Your task to perform on an android device: Show me popular videos on Youtube Image 0: 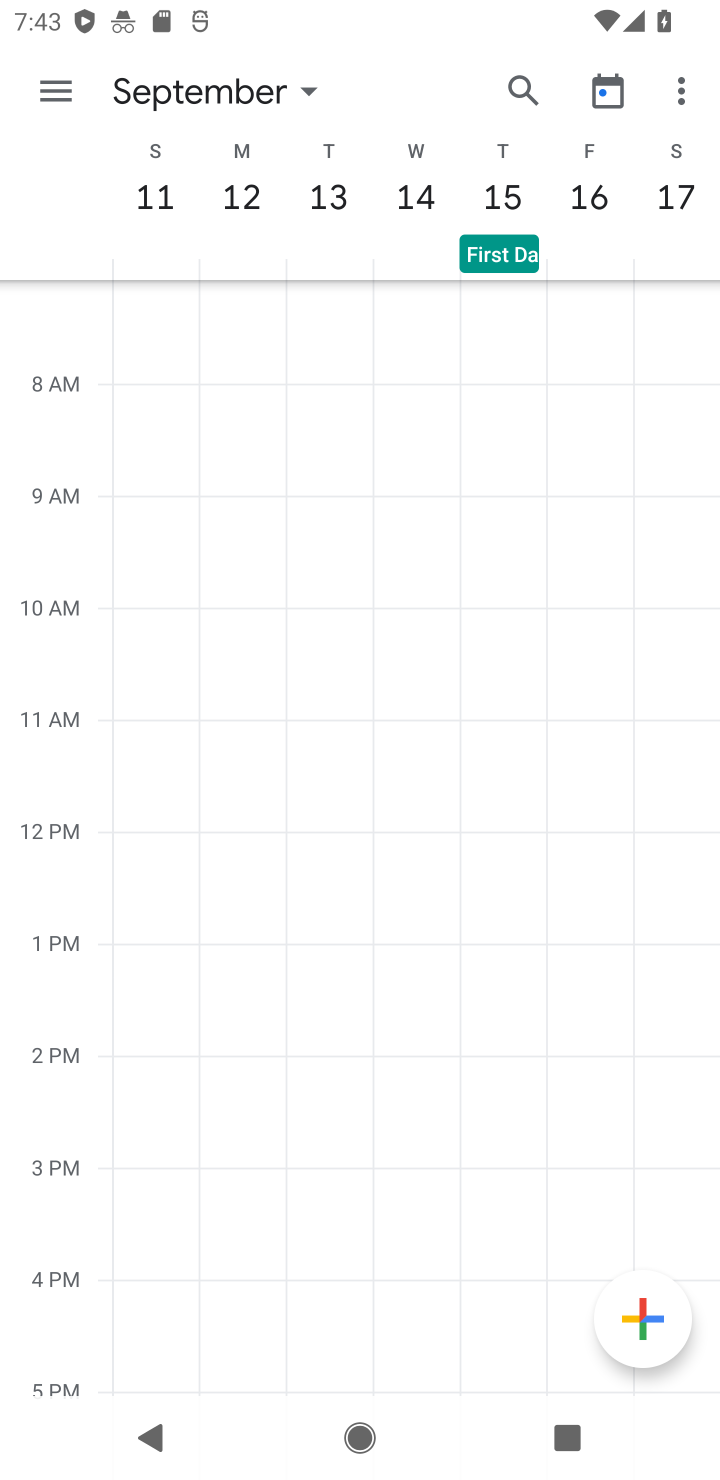
Step 0: press home button
Your task to perform on an android device: Show me popular videos on Youtube Image 1: 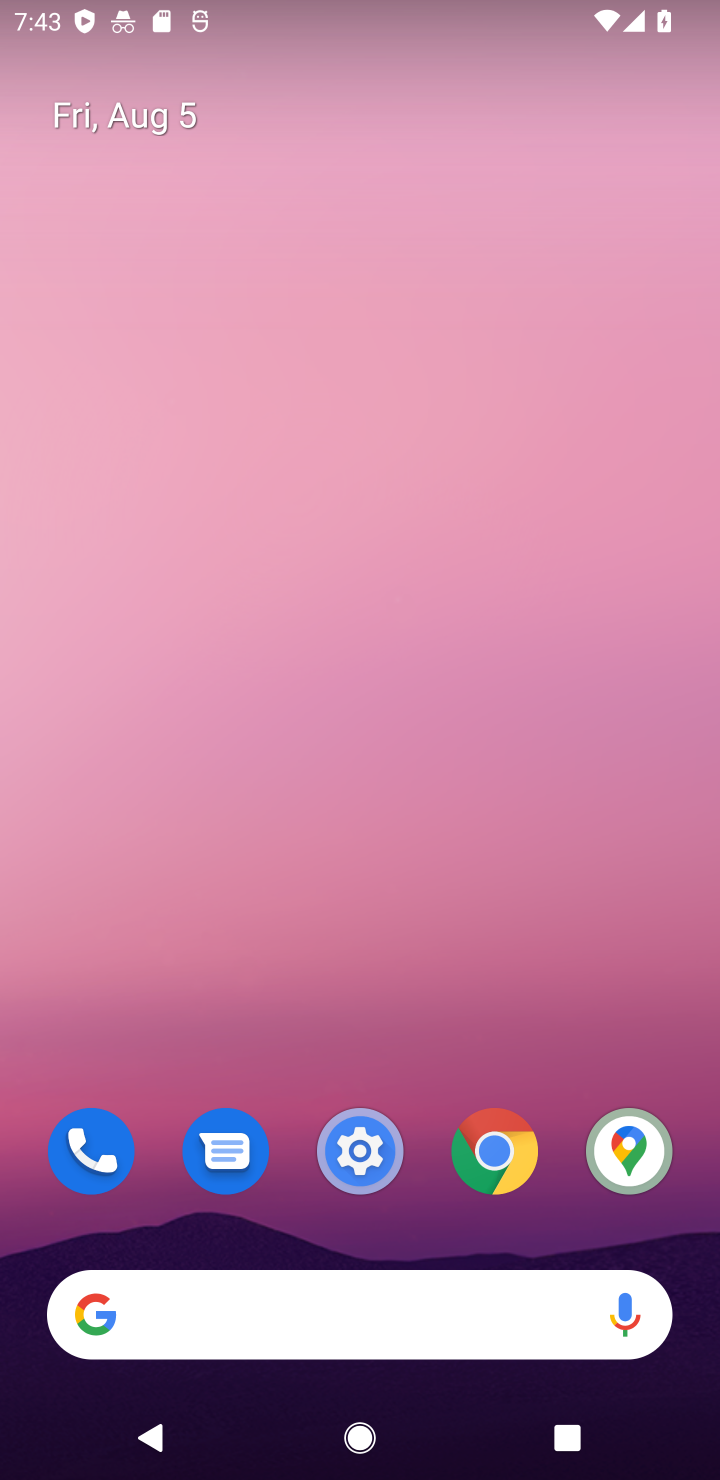
Step 1: drag from (381, 1251) to (290, 321)
Your task to perform on an android device: Show me popular videos on Youtube Image 2: 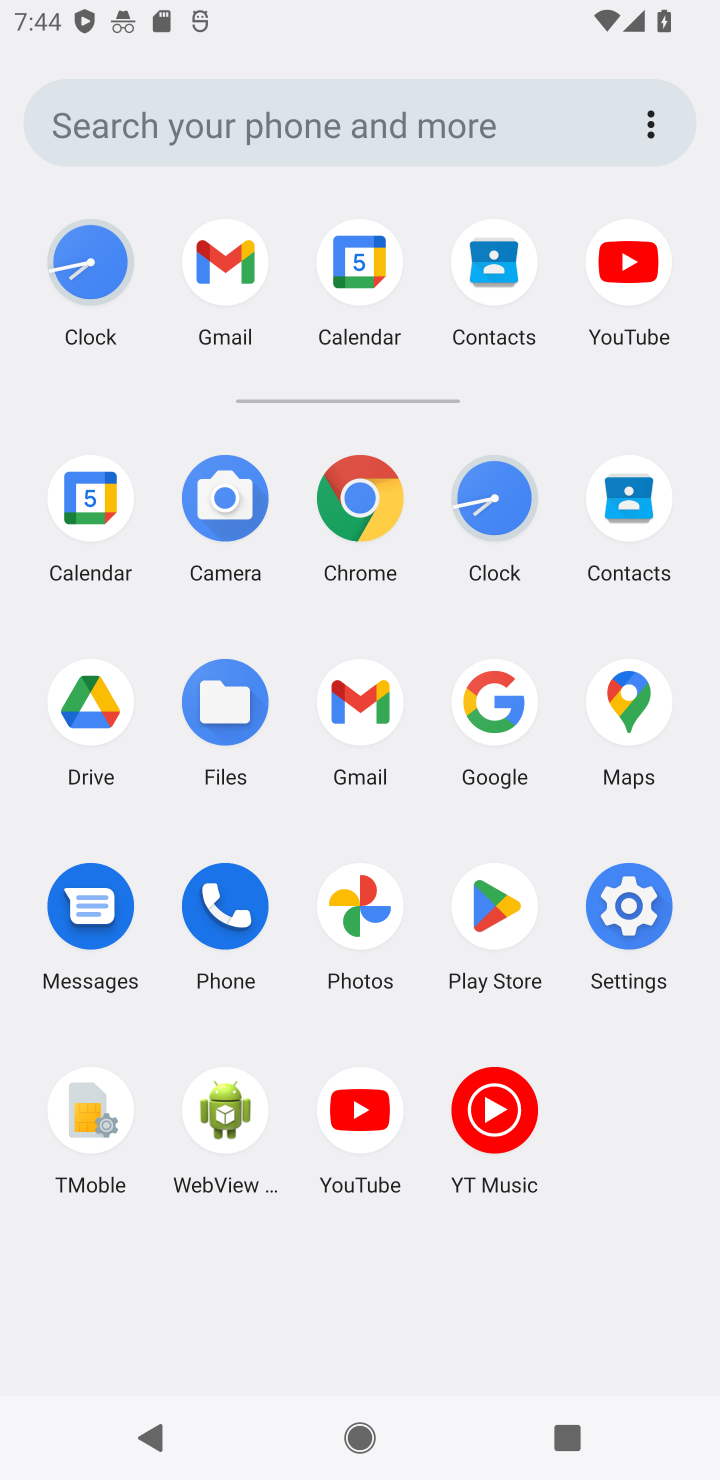
Step 2: click (354, 1061)
Your task to perform on an android device: Show me popular videos on Youtube Image 3: 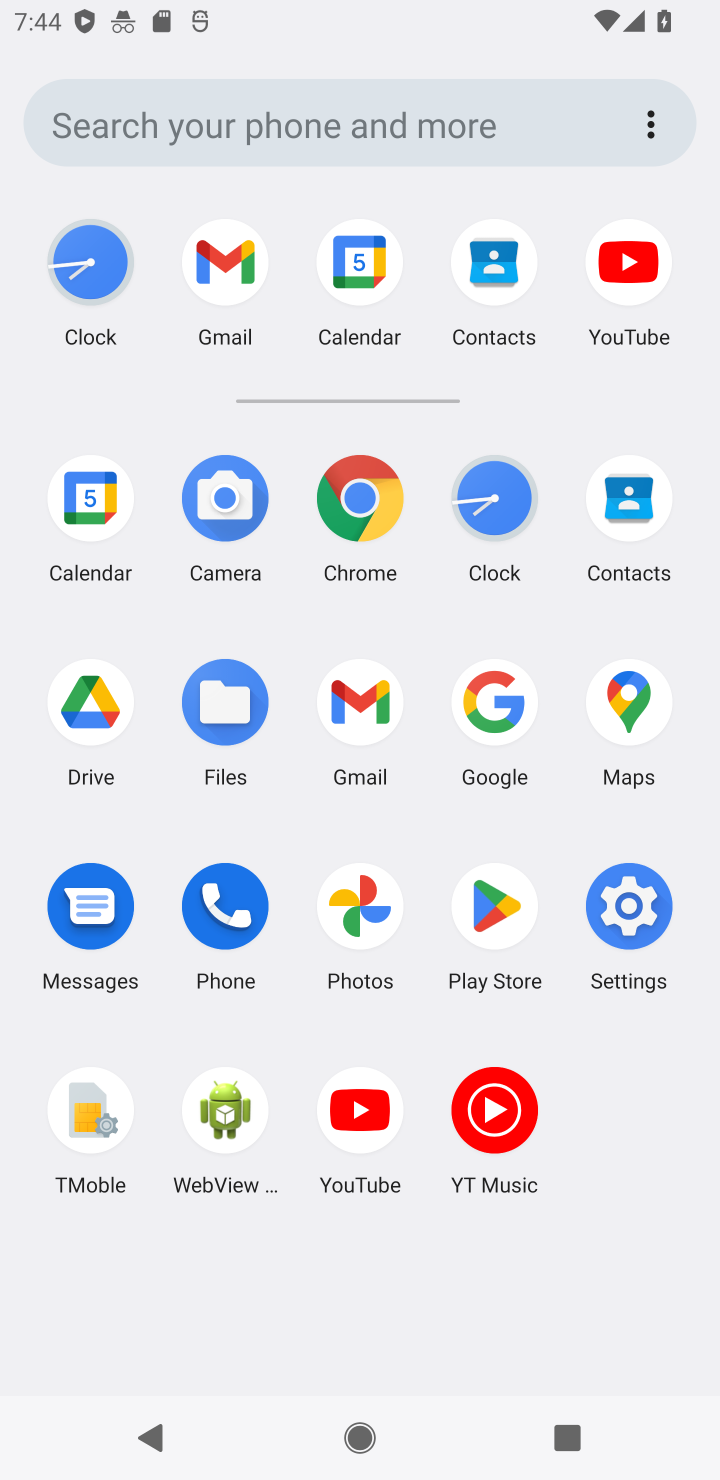
Step 3: click (618, 236)
Your task to perform on an android device: Show me popular videos on Youtube Image 4: 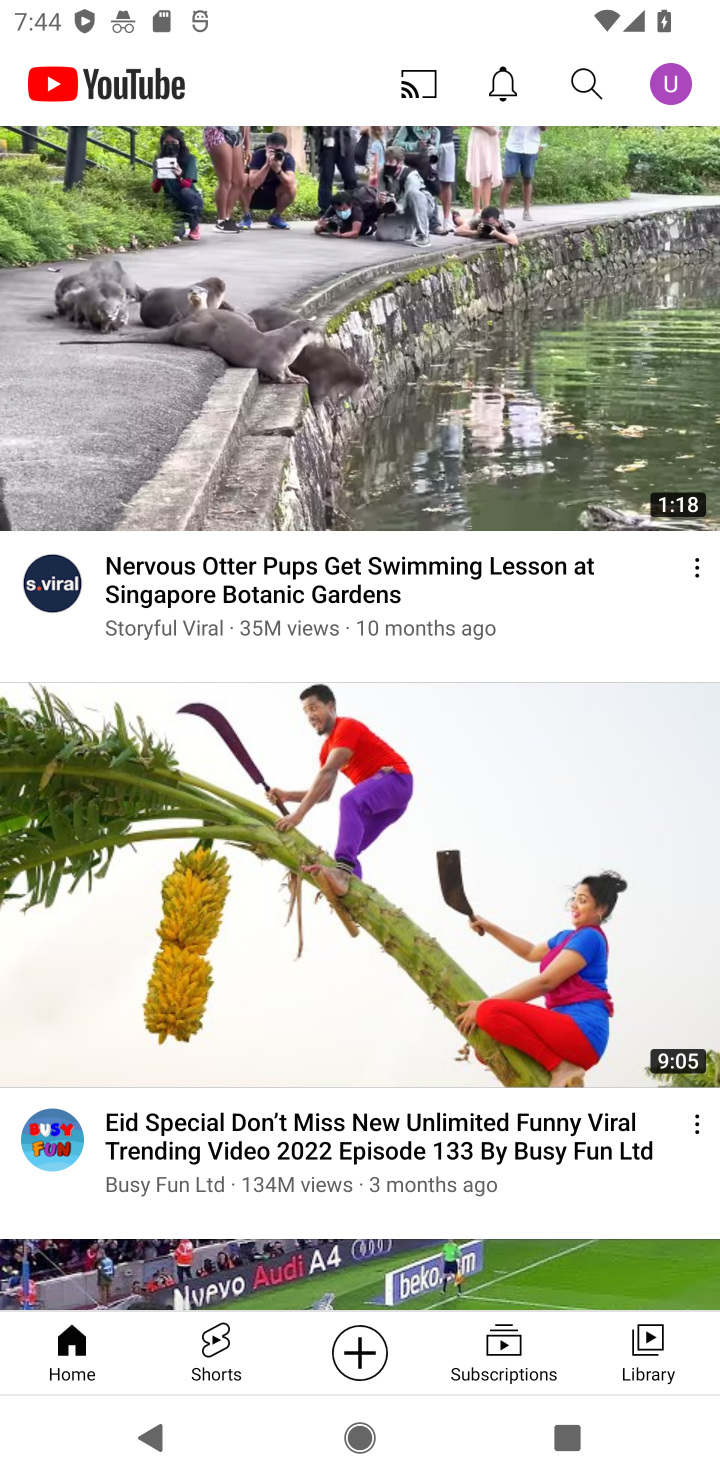
Step 4: click (85, 427)
Your task to perform on an android device: Show me popular videos on Youtube Image 5: 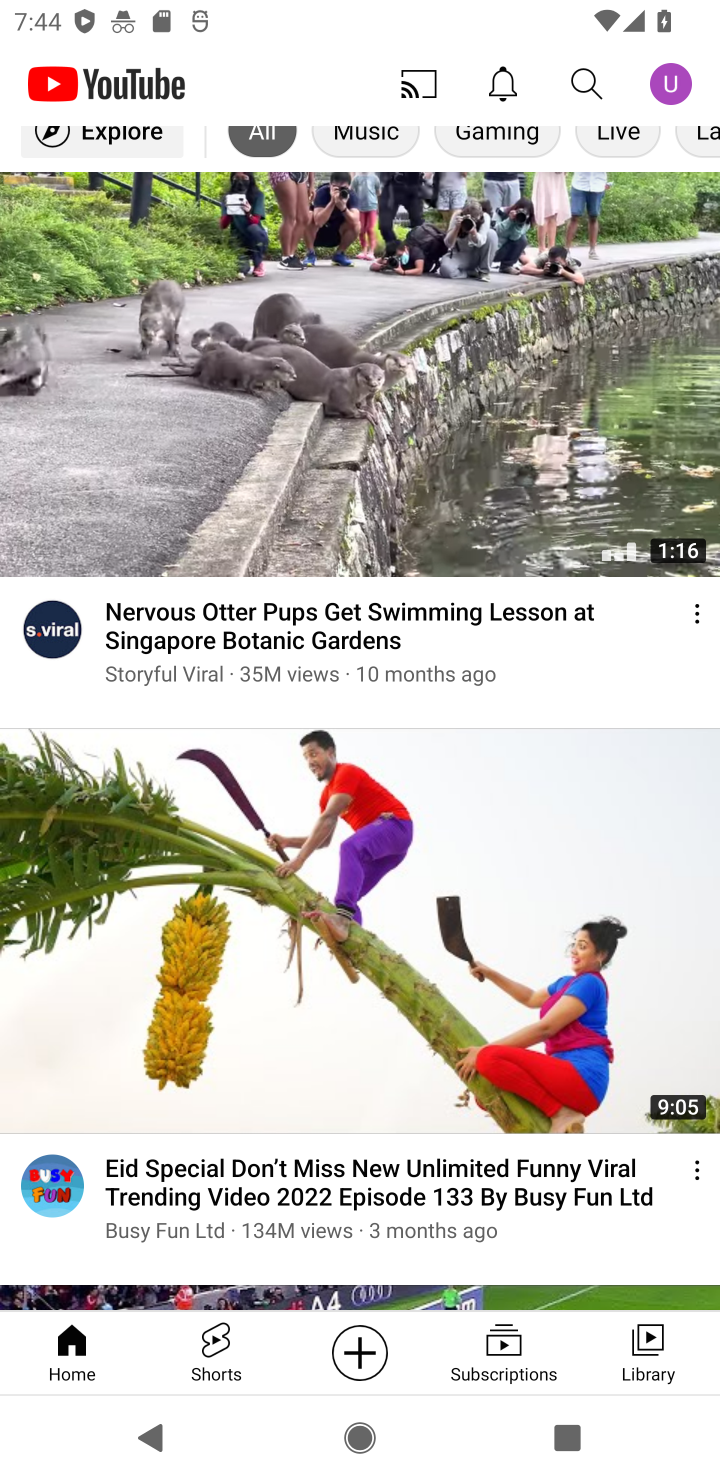
Step 5: drag from (125, 237) to (120, 464)
Your task to perform on an android device: Show me popular videos on Youtube Image 6: 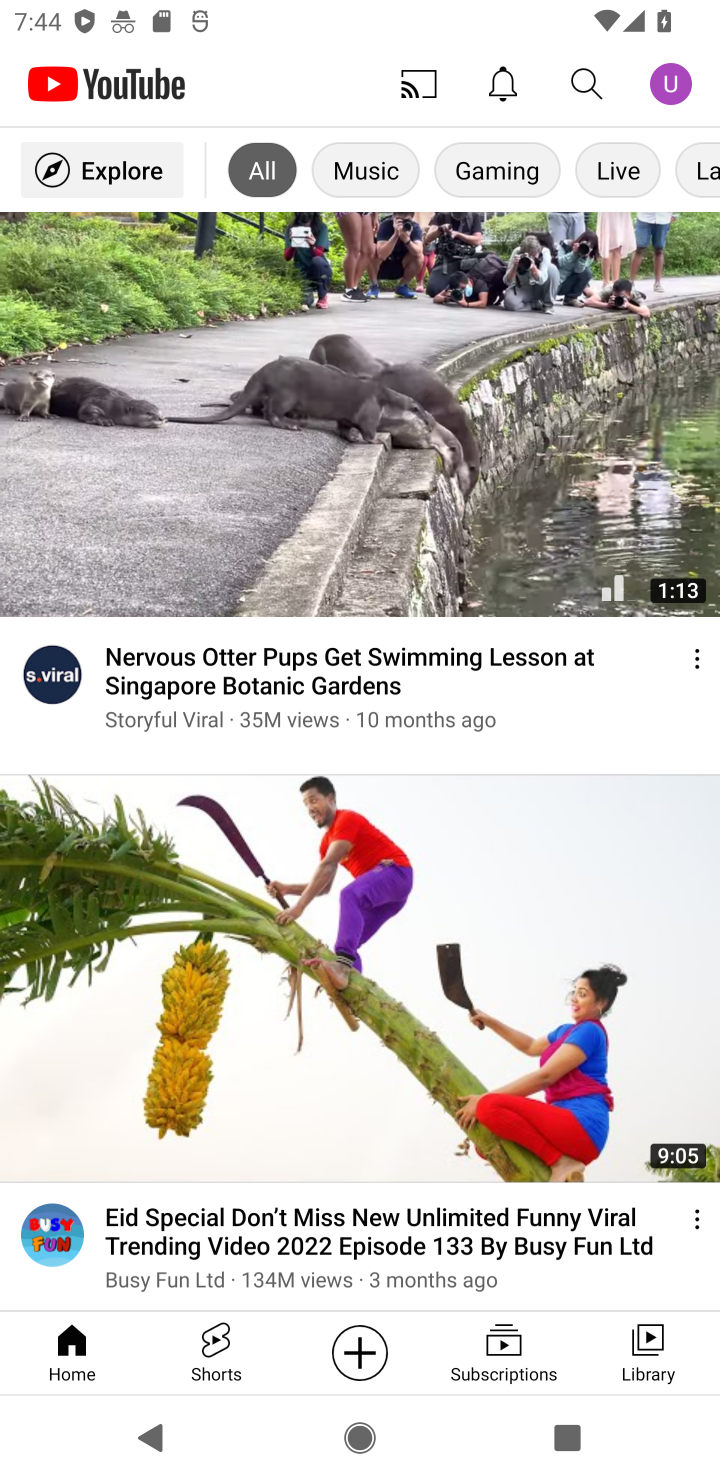
Step 6: click (93, 171)
Your task to perform on an android device: Show me popular videos on Youtube Image 7: 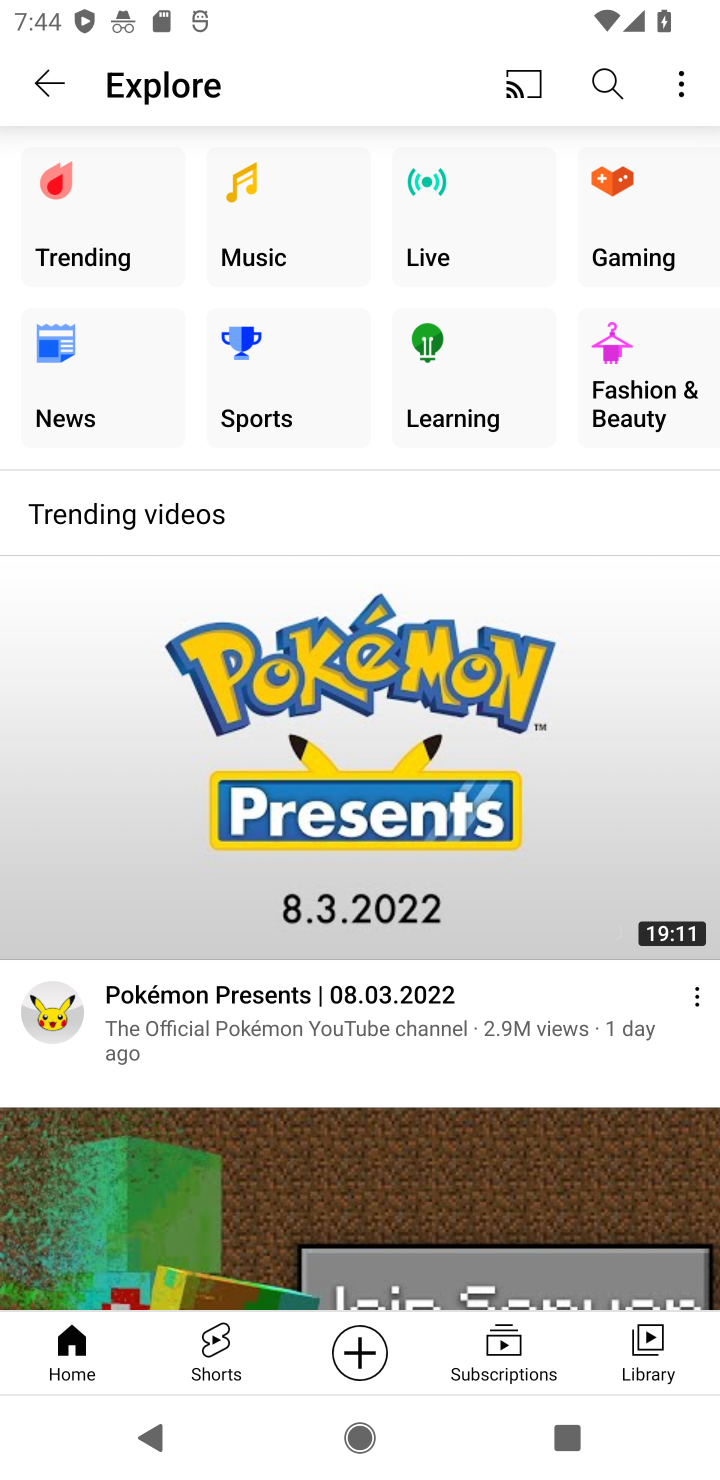
Step 7: click (89, 173)
Your task to perform on an android device: Show me popular videos on Youtube Image 8: 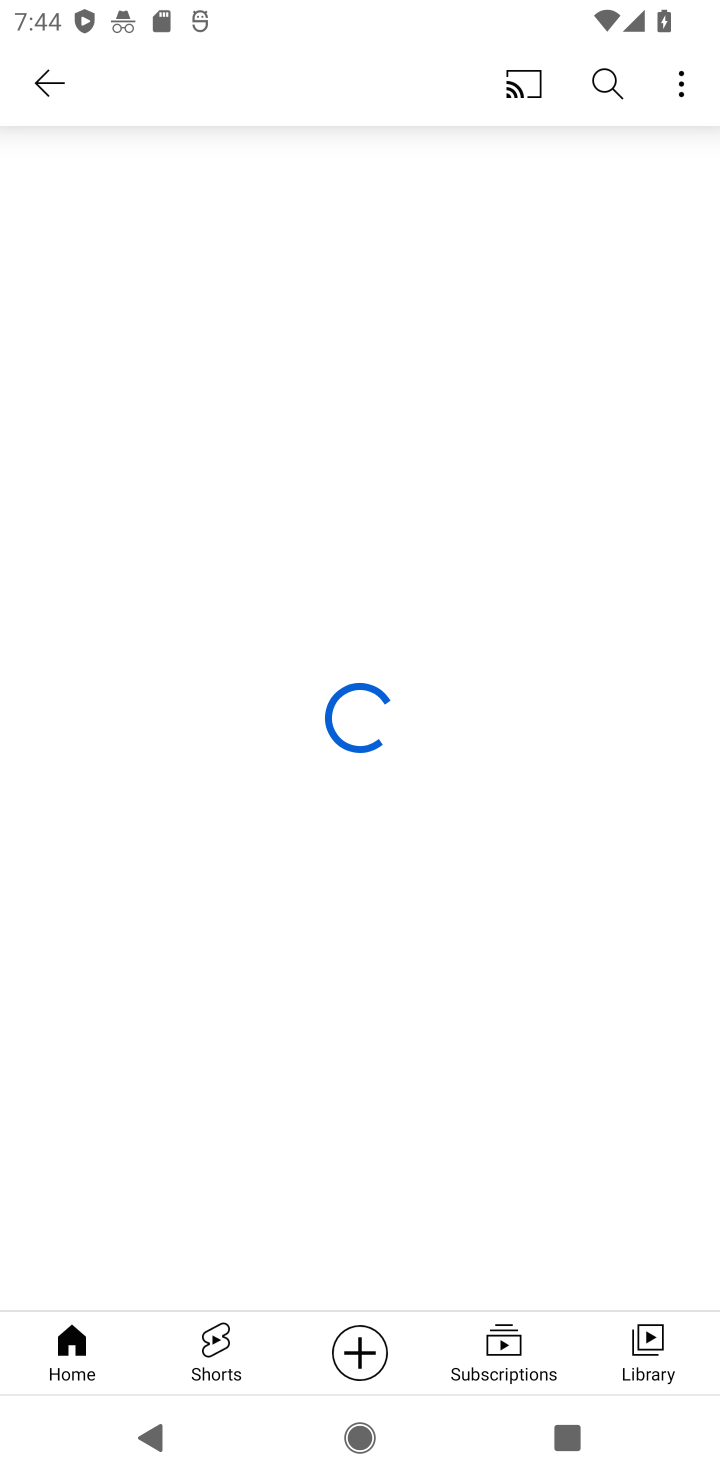
Step 8: task complete